Your task to perform on an android device: Open Google Chrome and open the bookmarks view Image 0: 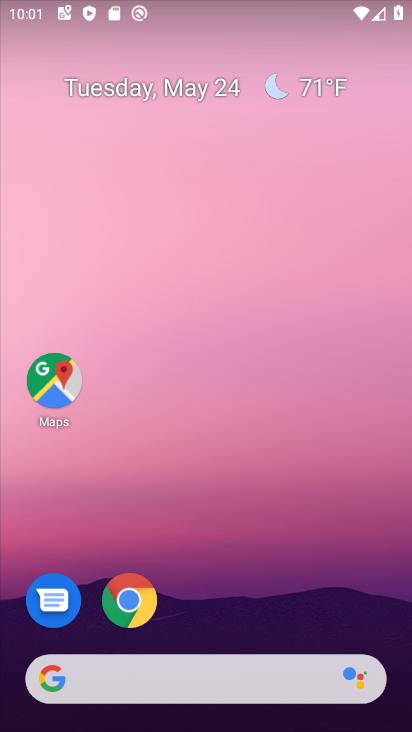
Step 0: click (131, 605)
Your task to perform on an android device: Open Google Chrome and open the bookmarks view Image 1: 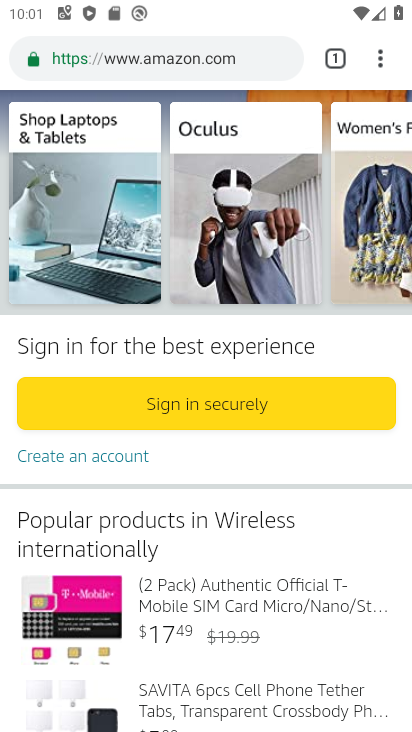
Step 1: click (382, 61)
Your task to perform on an android device: Open Google Chrome and open the bookmarks view Image 2: 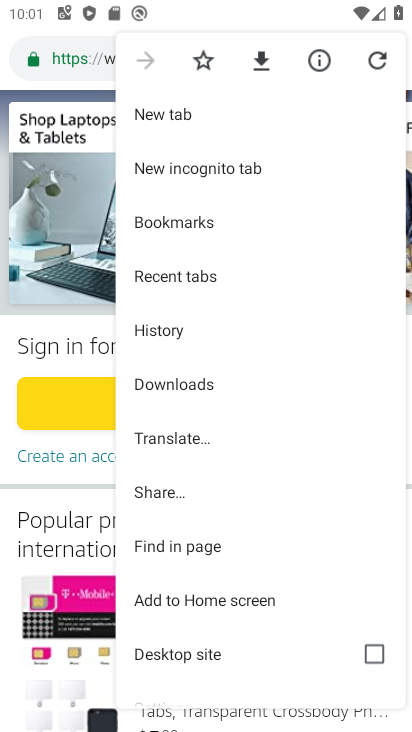
Step 2: click (183, 227)
Your task to perform on an android device: Open Google Chrome and open the bookmarks view Image 3: 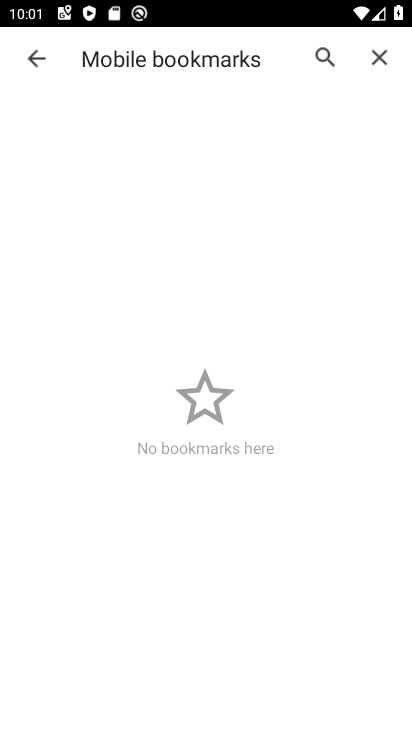
Step 3: task complete